Your task to perform on an android device: Check the weather Image 0: 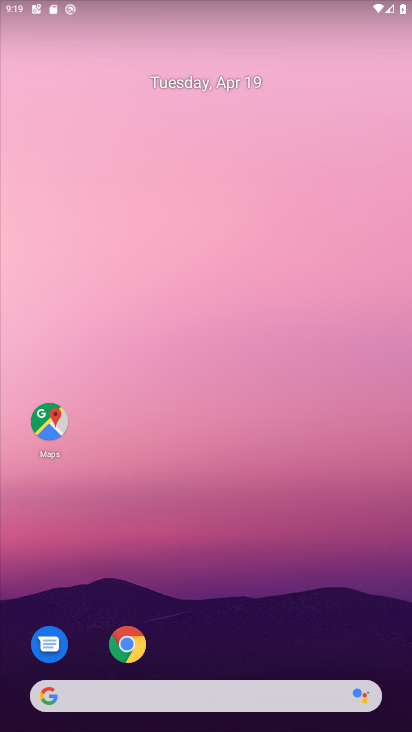
Step 0: drag from (222, 614) to (236, 90)
Your task to perform on an android device: Check the weather Image 1: 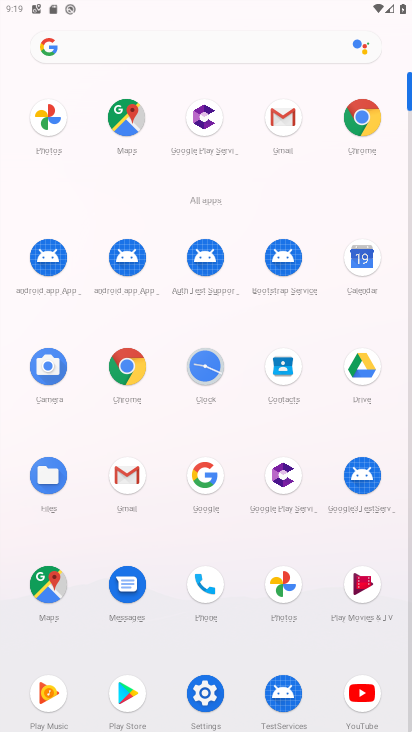
Step 1: click (198, 40)
Your task to perform on an android device: Check the weather Image 2: 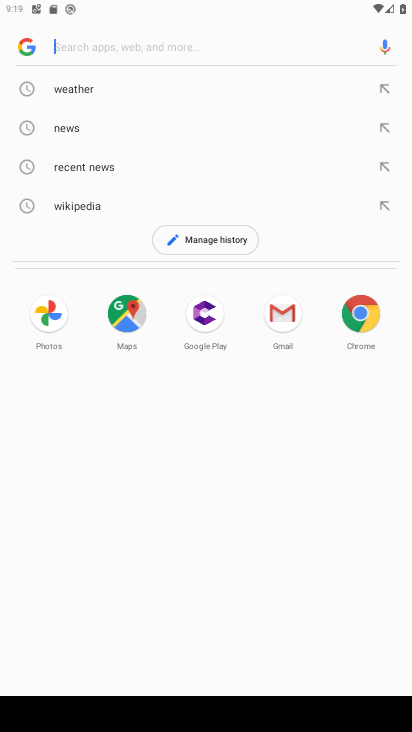
Step 2: type "wealther"
Your task to perform on an android device: Check the weather Image 3: 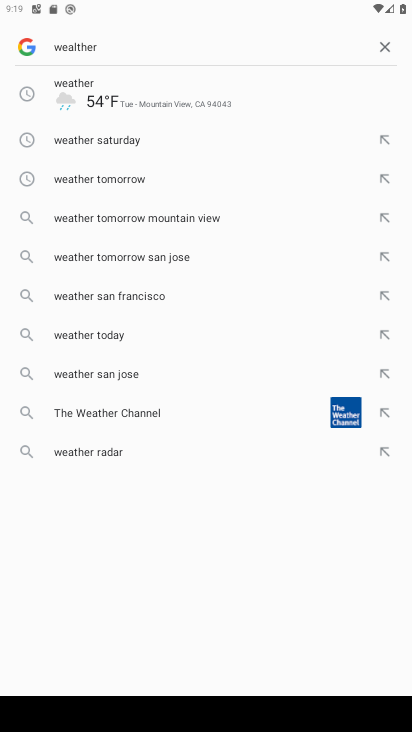
Step 3: click (161, 97)
Your task to perform on an android device: Check the weather Image 4: 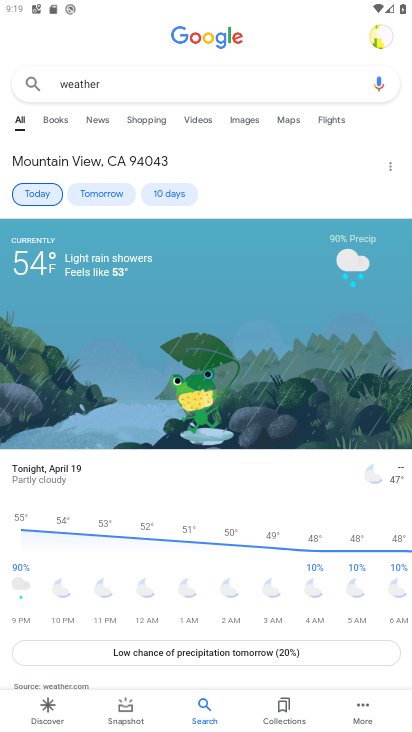
Step 4: task complete